Your task to perform on an android device: check google app version Image 0: 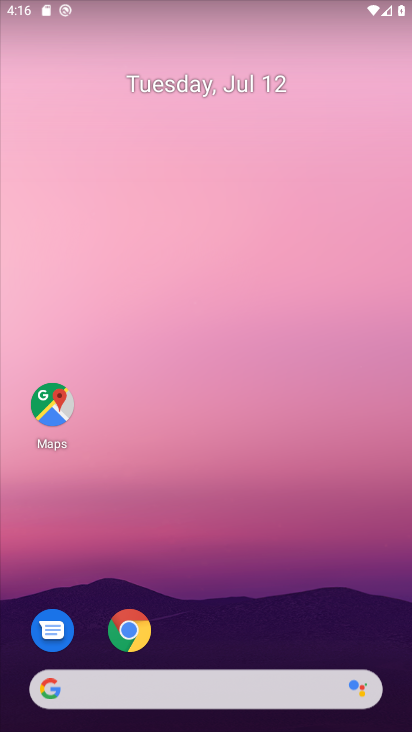
Step 0: drag from (203, 667) to (284, 141)
Your task to perform on an android device: check google app version Image 1: 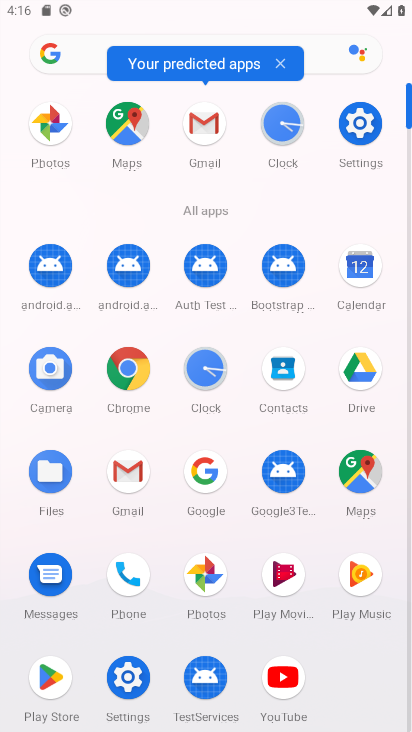
Step 1: click (118, 677)
Your task to perform on an android device: check google app version Image 2: 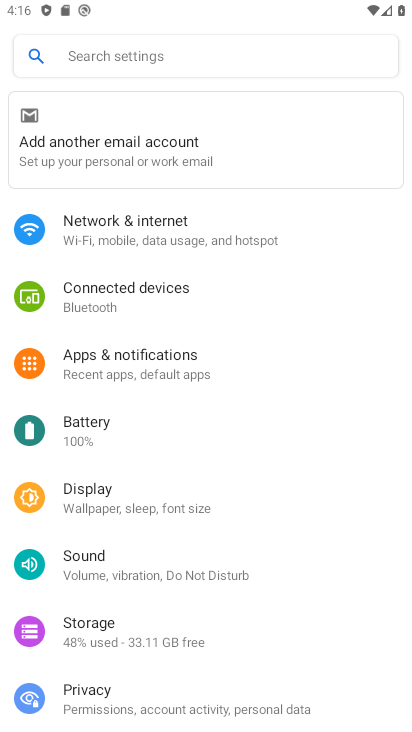
Step 2: click (128, 372)
Your task to perform on an android device: check google app version Image 3: 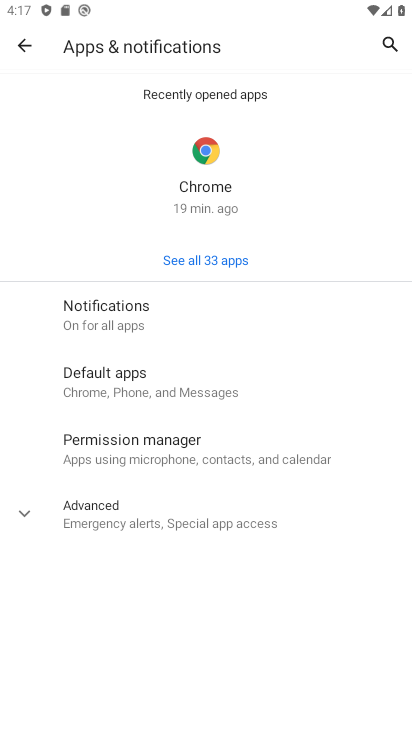
Step 3: click (156, 527)
Your task to perform on an android device: check google app version Image 4: 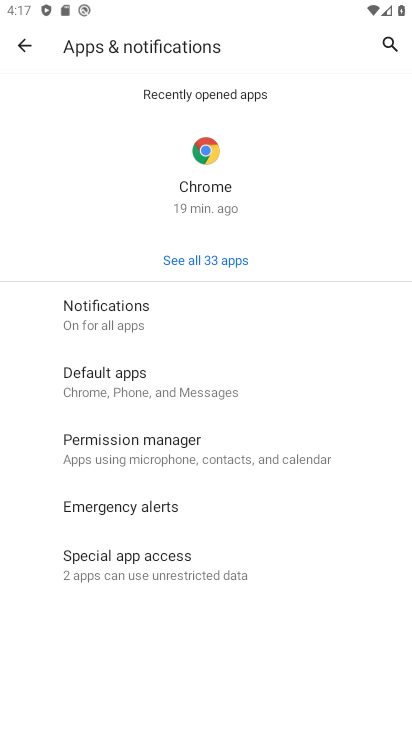
Step 4: click (229, 262)
Your task to perform on an android device: check google app version Image 5: 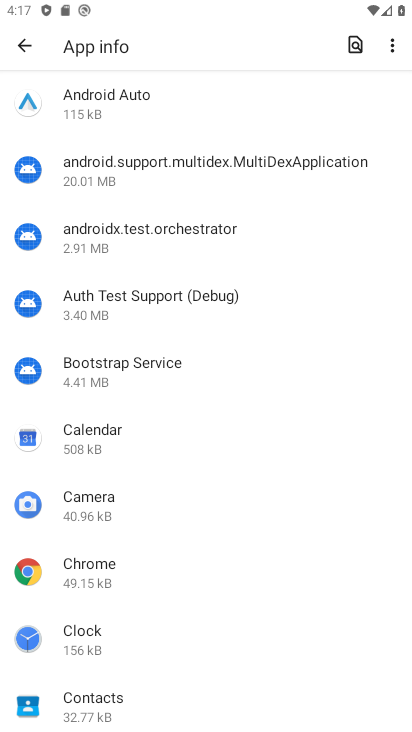
Step 5: drag from (125, 563) to (241, 146)
Your task to perform on an android device: check google app version Image 6: 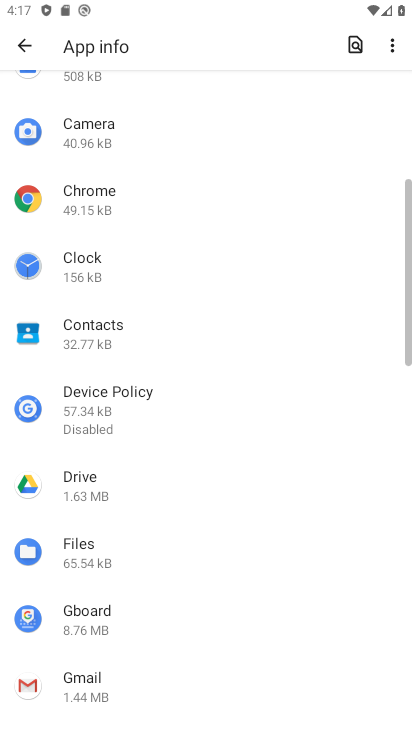
Step 6: drag from (115, 633) to (196, 338)
Your task to perform on an android device: check google app version Image 7: 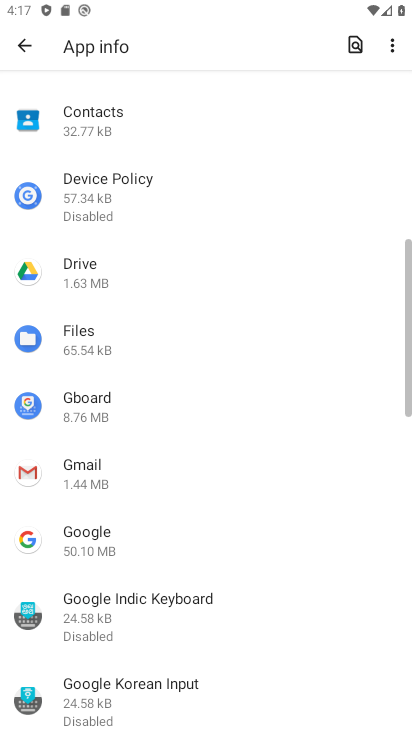
Step 7: click (136, 544)
Your task to perform on an android device: check google app version Image 8: 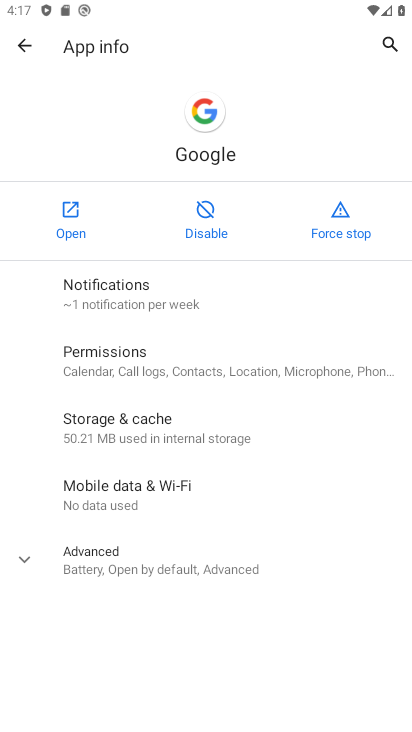
Step 8: drag from (126, 693) to (275, 325)
Your task to perform on an android device: check google app version Image 9: 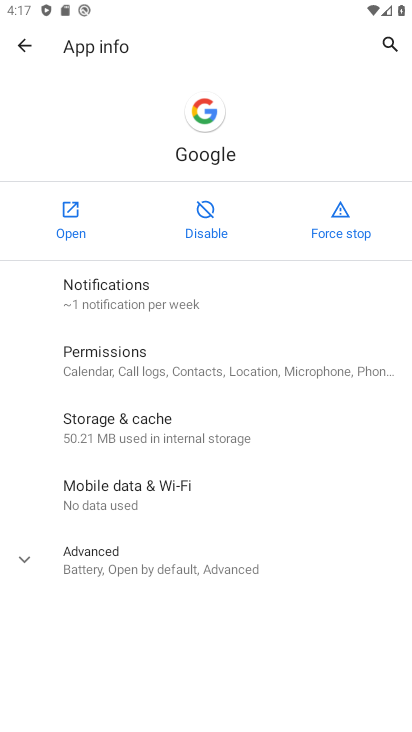
Step 9: click (153, 580)
Your task to perform on an android device: check google app version Image 10: 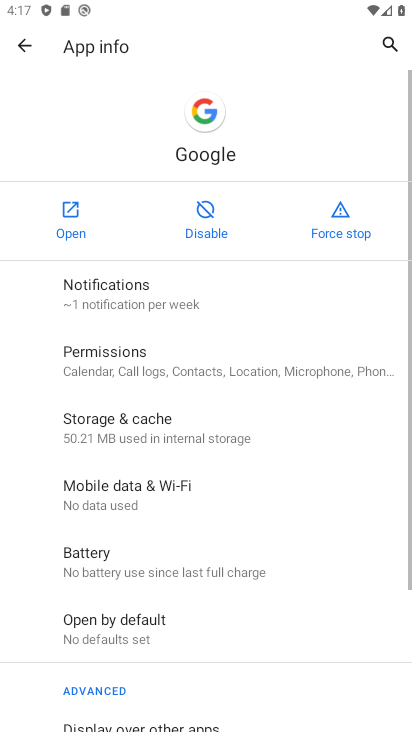
Step 10: task complete